Your task to perform on an android device: turn on sleep mode Image 0: 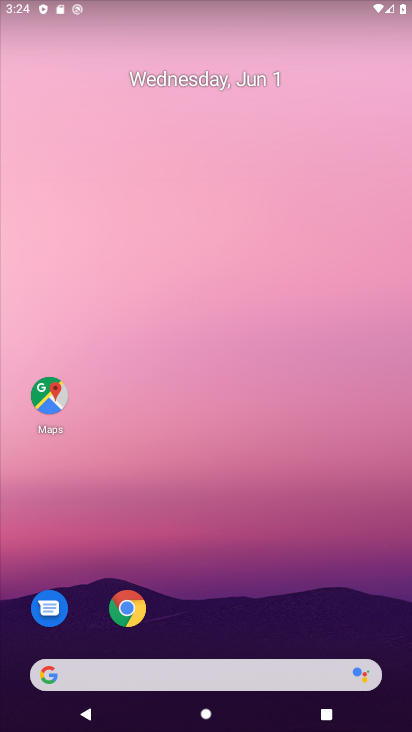
Step 0: drag from (245, 635) to (187, 81)
Your task to perform on an android device: turn on sleep mode Image 1: 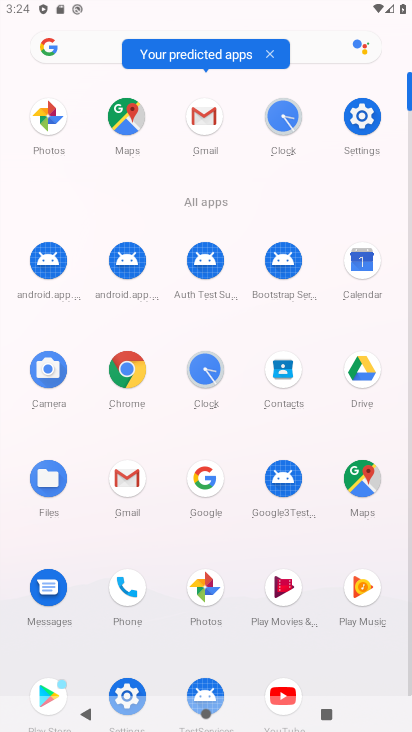
Step 1: click (368, 125)
Your task to perform on an android device: turn on sleep mode Image 2: 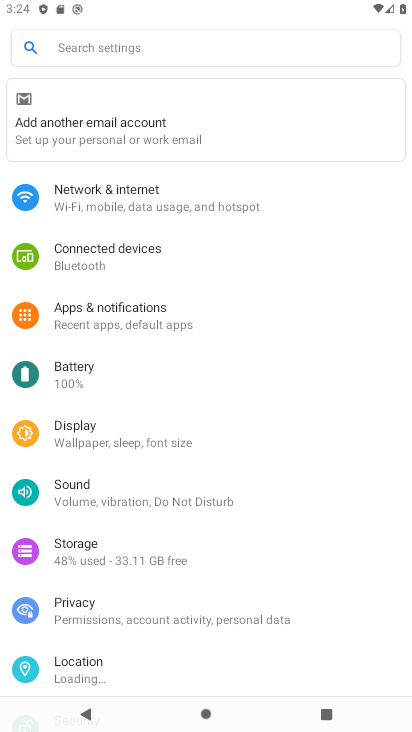
Step 2: click (172, 441)
Your task to perform on an android device: turn on sleep mode Image 3: 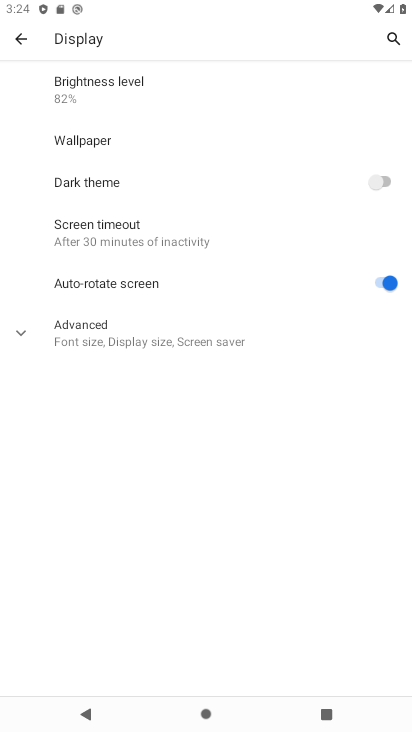
Step 3: click (171, 336)
Your task to perform on an android device: turn on sleep mode Image 4: 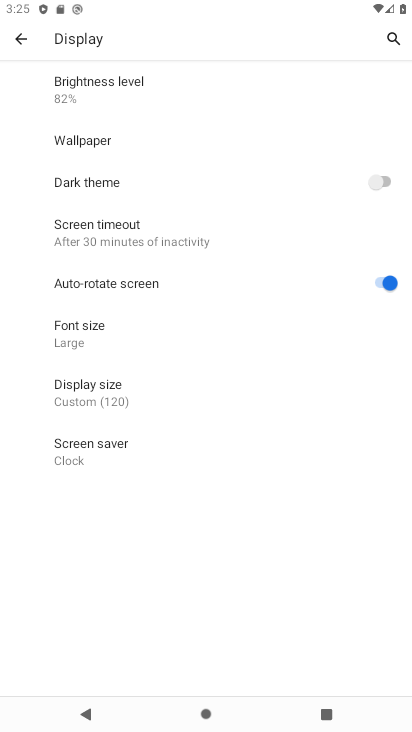
Step 4: task complete